Your task to perform on an android device: delete location history Image 0: 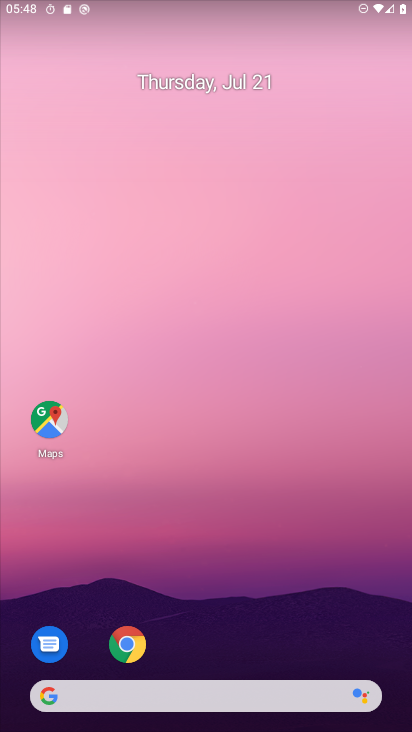
Step 0: click (193, 123)
Your task to perform on an android device: delete location history Image 1: 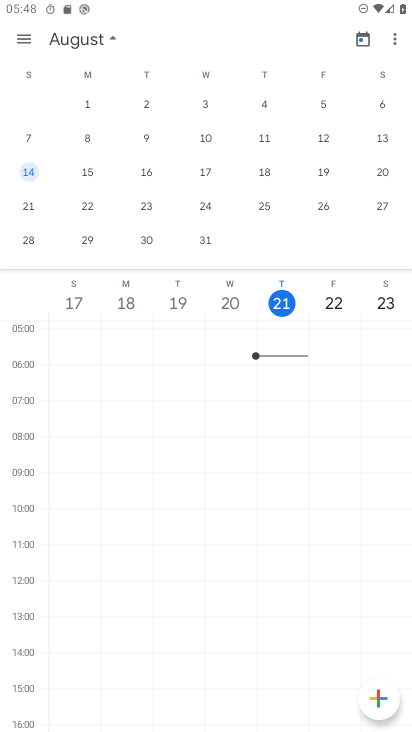
Step 1: press home button
Your task to perform on an android device: delete location history Image 2: 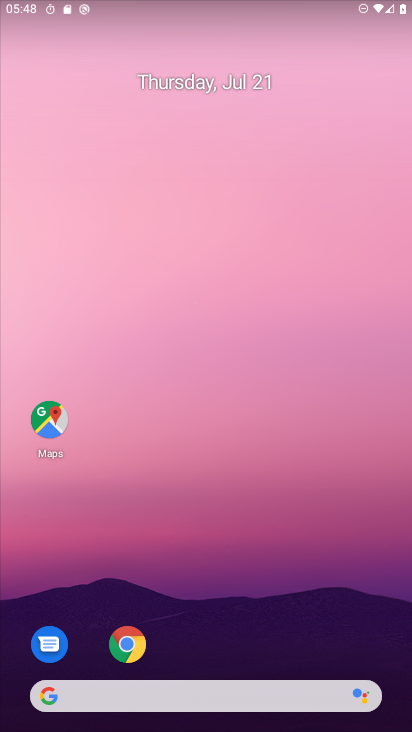
Step 2: drag from (172, 480) to (163, 157)
Your task to perform on an android device: delete location history Image 3: 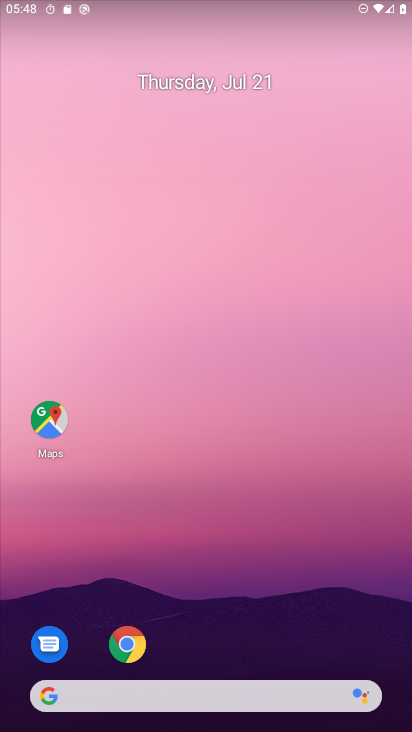
Step 3: drag from (210, 612) to (211, 226)
Your task to perform on an android device: delete location history Image 4: 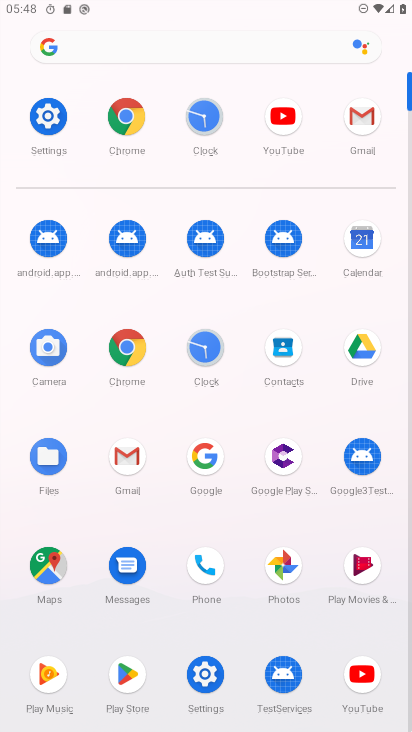
Step 4: click (43, 112)
Your task to perform on an android device: delete location history Image 5: 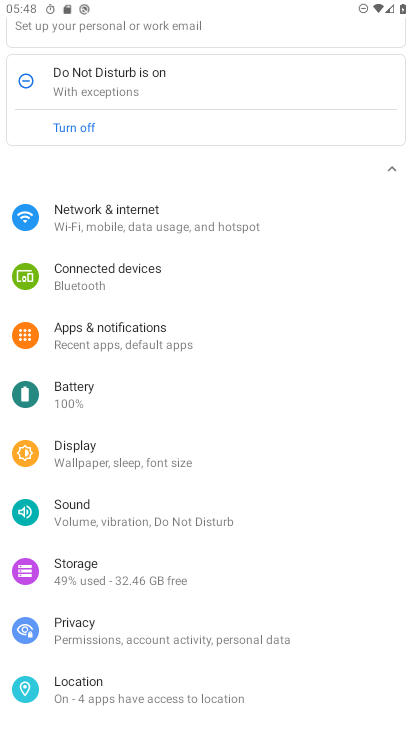
Step 5: click (70, 694)
Your task to perform on an android device: delete location history Image 6: 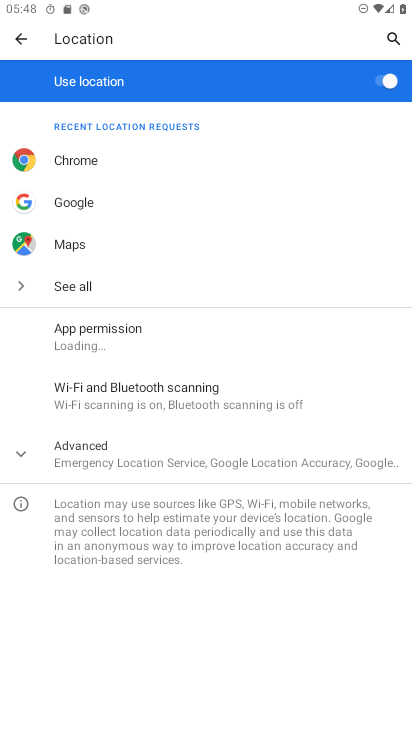
Step 6: click (131, 458)
Your task to perform on an android device: delete location history Image 7: 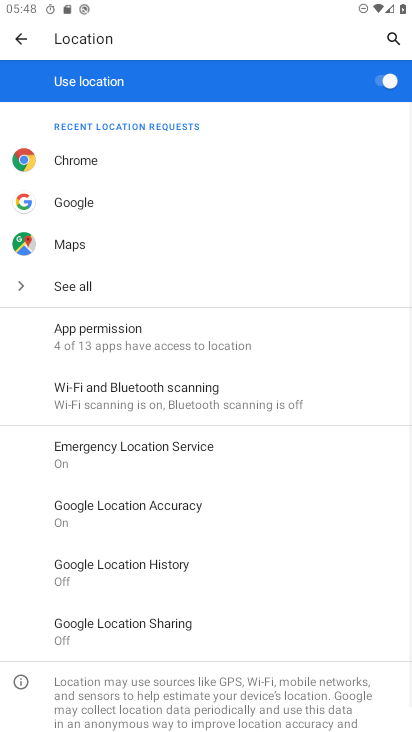
Step 7: click (144, 557)
Your task to perform on an android device: delete location history Image 8: 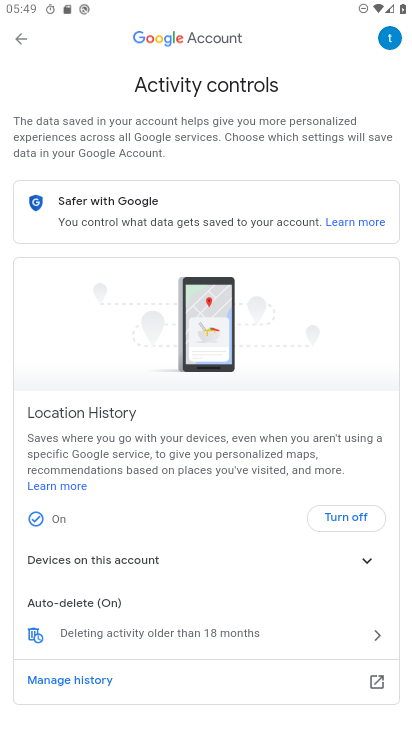
Step 8: click (71, 675)
Your task to perform on an android device: delete location history Image 9: 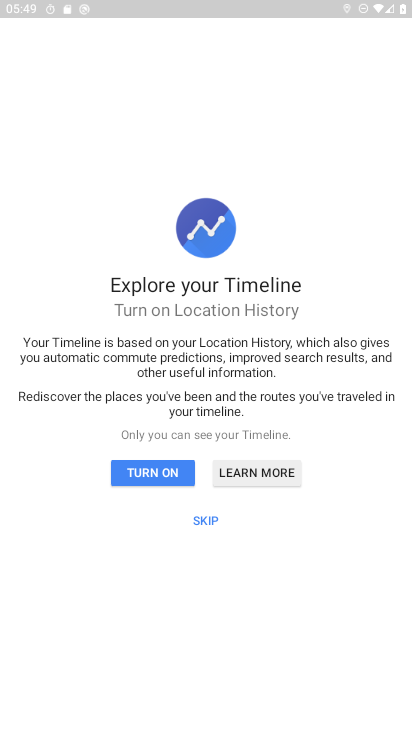
Step 9: click (158, 463)
Your task to perform on an android device: delete location history Image 10: 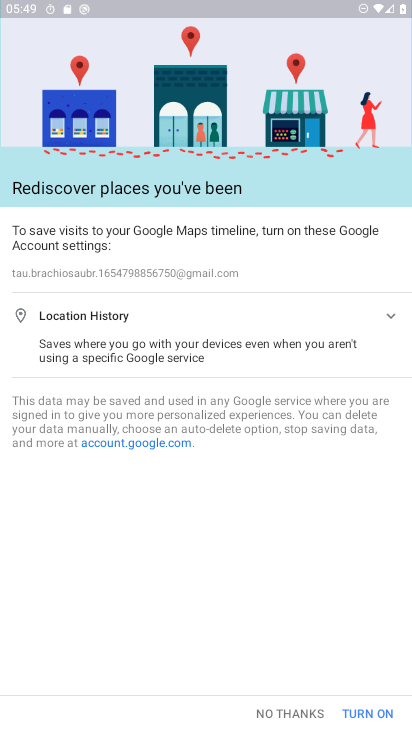
Step 10: click (312, 708)
Your task to perform on an android device: delete location history Image 11: 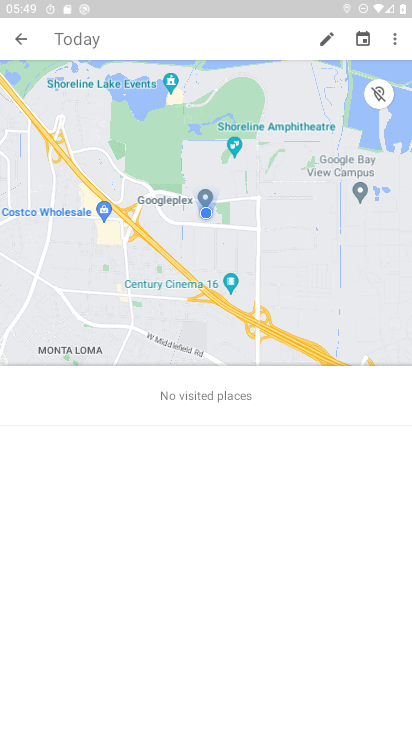
Step 11: click (390, 42)
Your task to perform on an android device: delete location history Image 12: 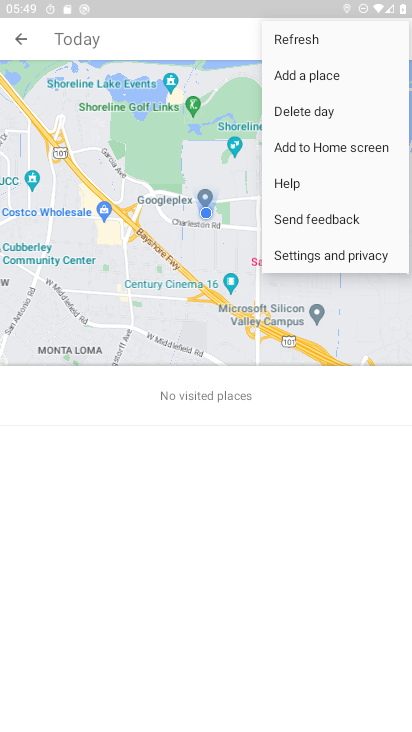
Step 12: click (309, 262)
Your task to perform on an android device: delete location history Image 13: 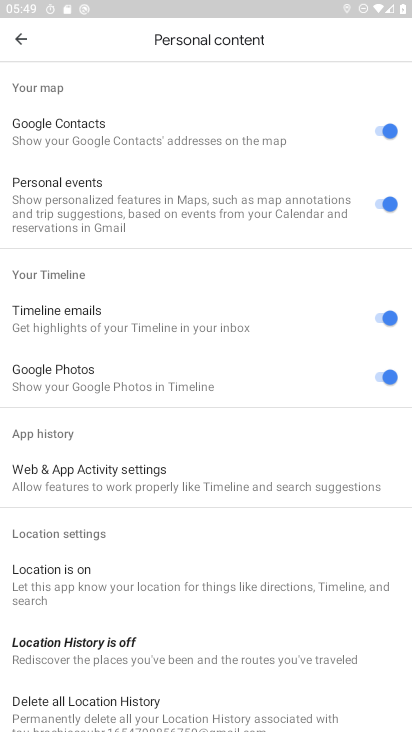
Step 13: click (119, 697)
Your task to perform on an android device: delete location history Image 14: 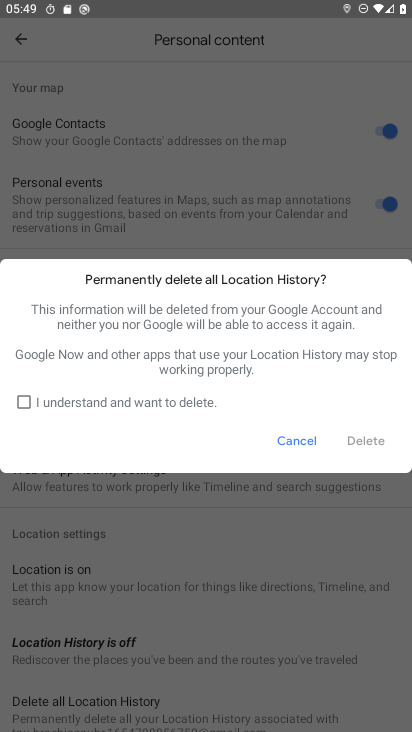
Step 14: click (24, 406)
Your task to perform on an android device: delete location history Image 15: 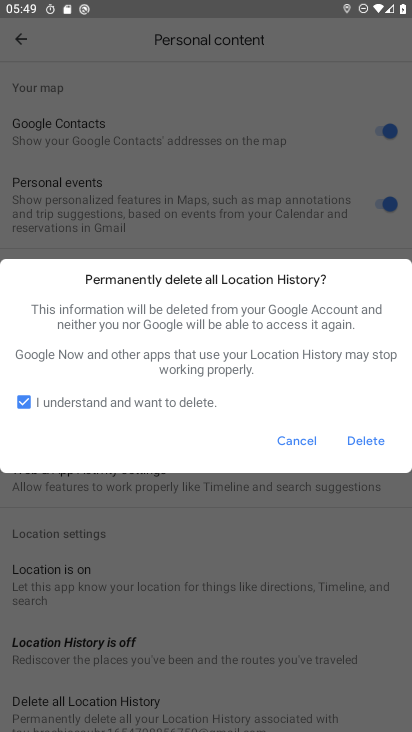
Step 15: click (351, 445)
Your task to perform on an android device: delete location history Image 16: 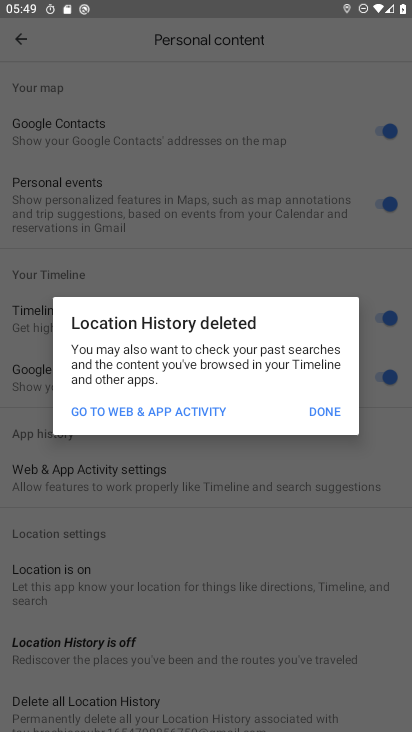
Step 16: click (312, 408)
Your task to perform on an android device: delete location history Image 17: 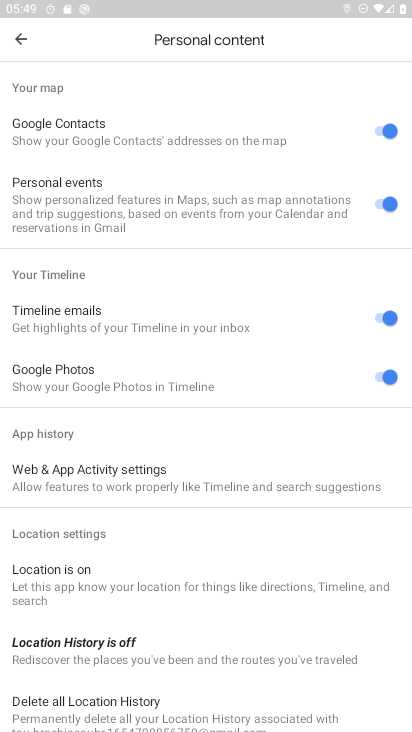
Step 17: task complete